Your task to perform on an android device: Open the Play Movies app and select the watchlist tab. Image 0: 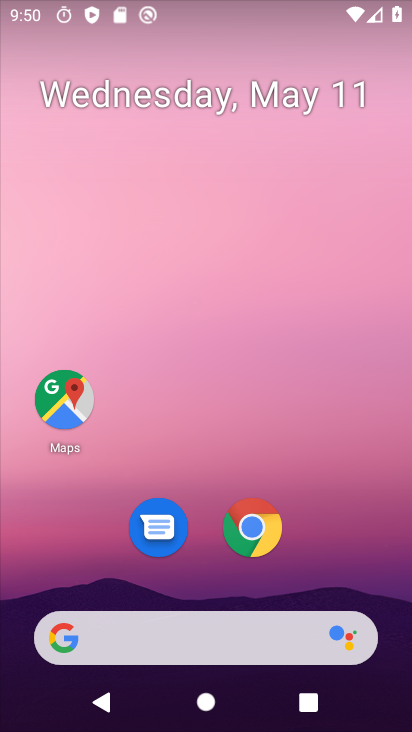
Step 0: drag from (245, 610) to (306, 174)
Your task to perform on an android device: Open the Play Movies app and select the watchlist tab. Image 1: 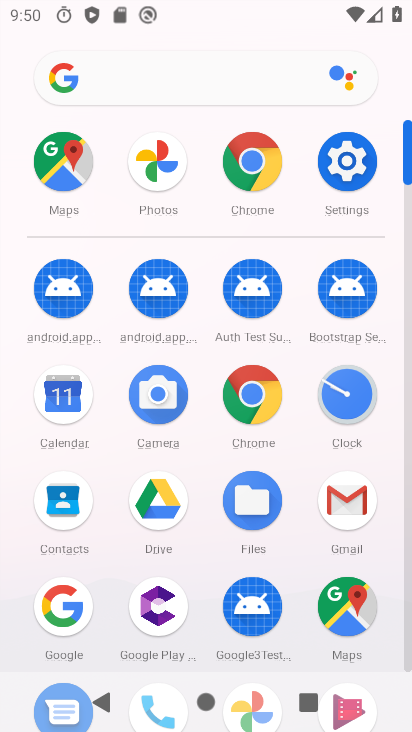
Step 1: drag from (276, 485) to (275, 212)
Your task to perform on an android device: Open the Play Movies app and select the watchlist tab. Image 2: 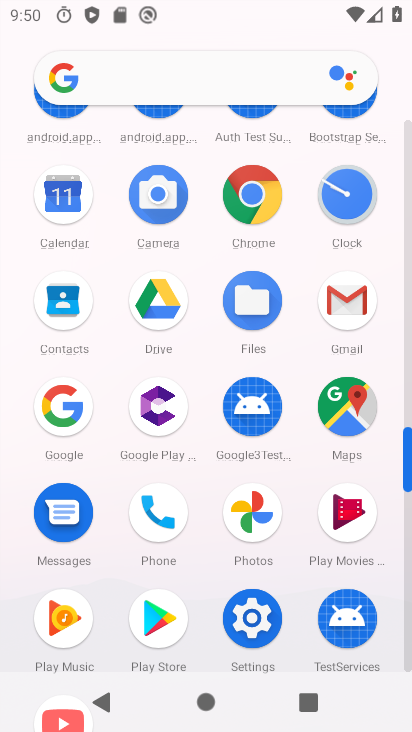
Step 2: click (359, 517)
Your task to perform on an android device: Open the Play Movies app and select the watchlist tab. Image 3: 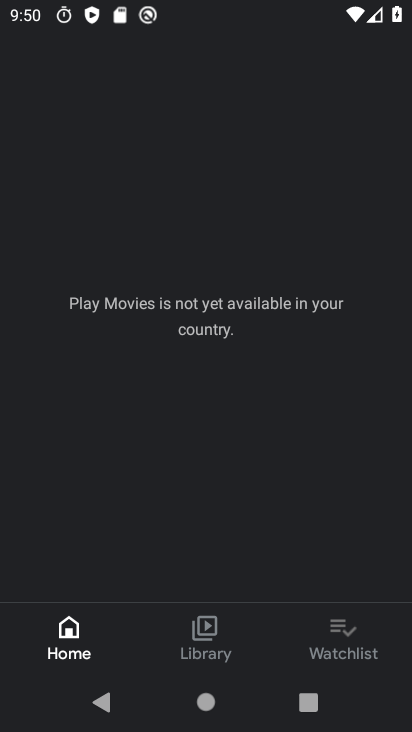
Step 3: click (356, 643)
Your task to perform on an android device: Open the Play Movies app and select the watchlist tab. Image 4: 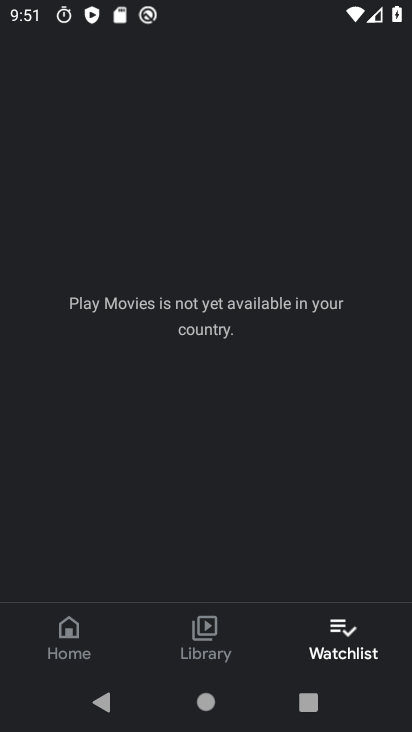
Step 4: task complete